Your task to perform on an android device: turn on improve location accuracy Image 0: 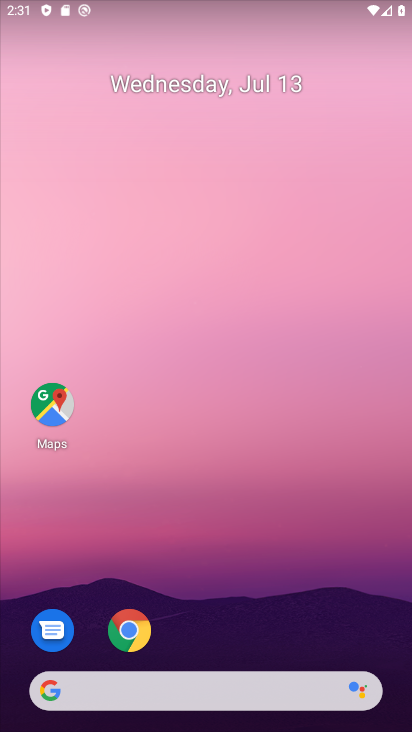
Step 0: drag from (320, 645) to (237, 259)
Your task to perform on an android device: turn on improve location accuracy Image 1: 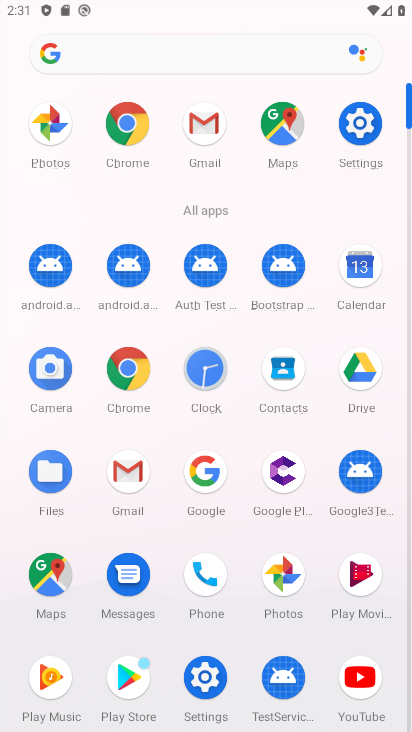
Step 1: click (360, 128)
Your task to perform on an android device: turn on improve location accuracy Image 2: 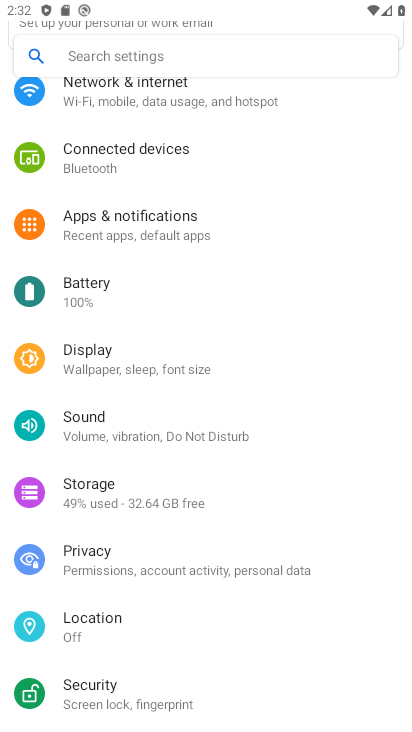
Step 2: click (143, 619)
Your task to perform on an android device: turn on improve location accuracy Image 3: 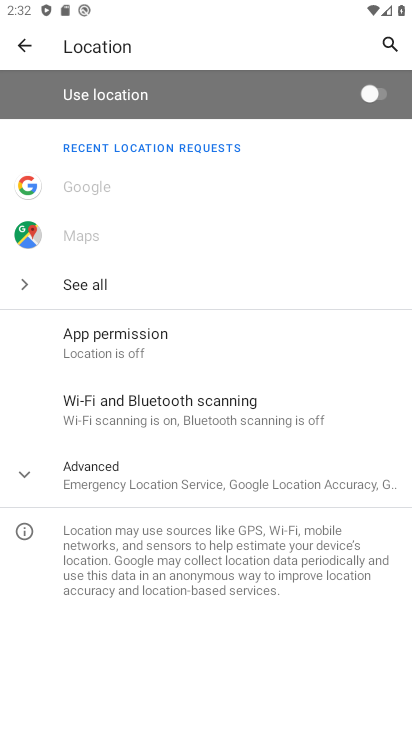
Step 3: click (317, 477)
Your task to perform on an android device: turn on improve location accuracy Image 4: 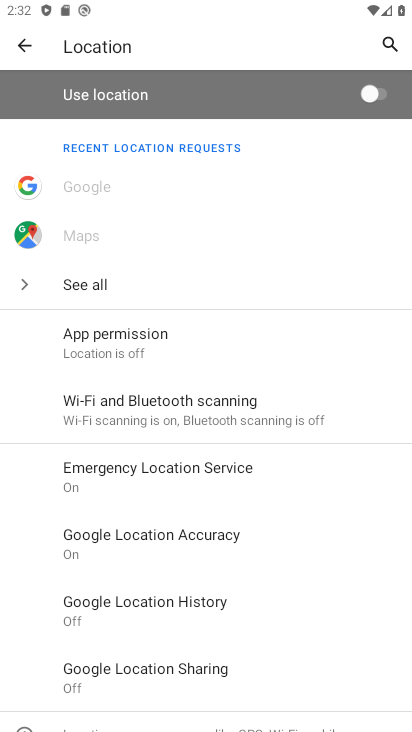
Step 4: click (269, 540)
Your task to perform on an android device: turn on improve location accuracy Image 5: 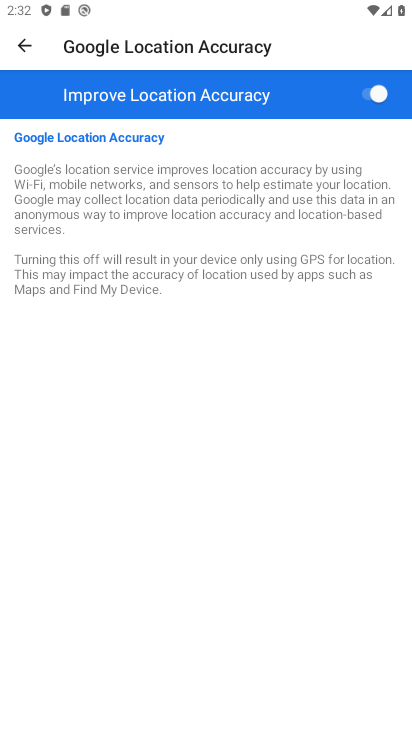
Step 5: task complete